Your task to perform on an android device: Go to Android settings Image 0: 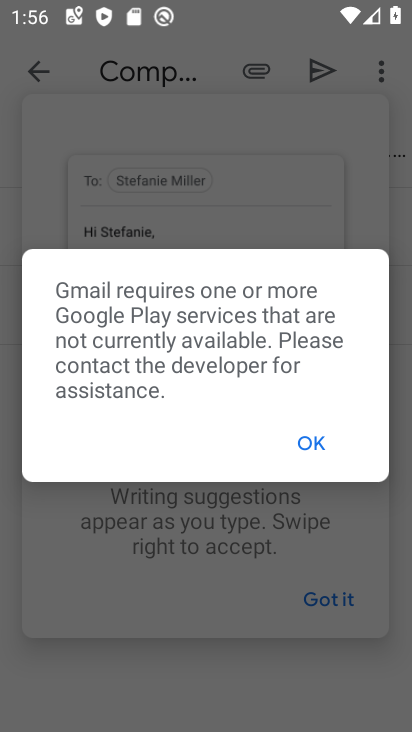
Step 0: press home button
Your task to perform on an android device: Go to Android settings Image 1: 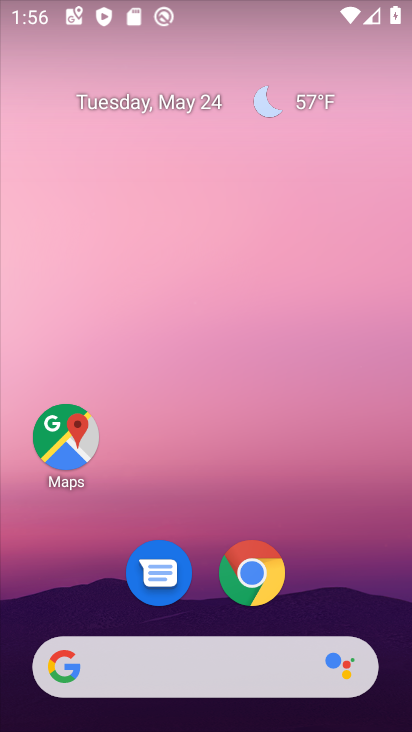
Step 1: drag from (330, 594) to (394, 11)
Your task to perform on an android device: Go to Android settings Image 2: 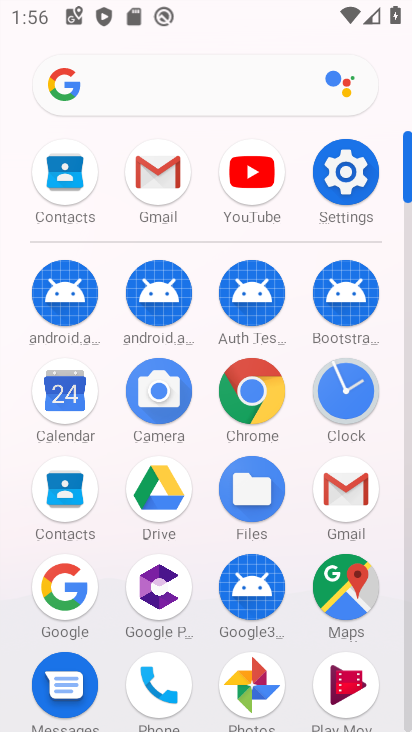
Step 2: click (335, 173)
Your task to perform on an android device: Go to Android settings Image 3: 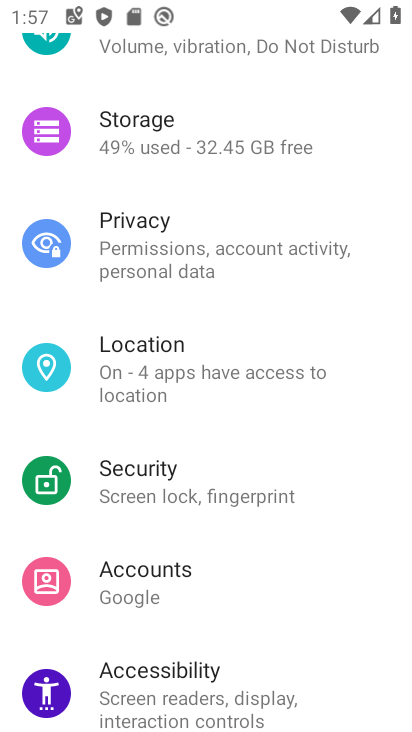
Step 3: task complete